Your task to perform on an android device: find which apps use the phone's location Image 0: 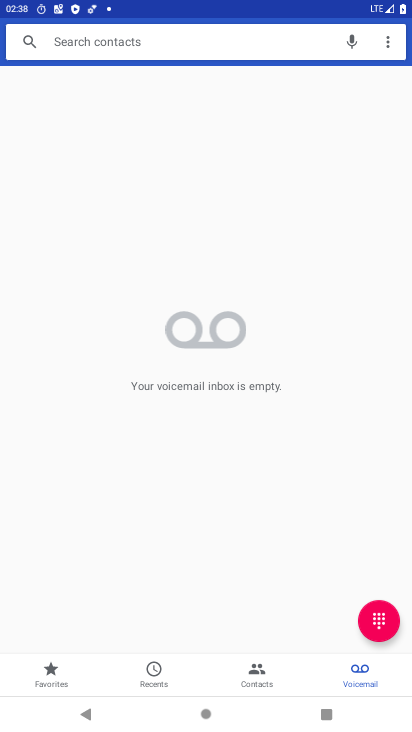
Step 0: drag from (238, 616) to (294, 274)
Your task to perform on an android device: find which apps use the phone's location Image 1: 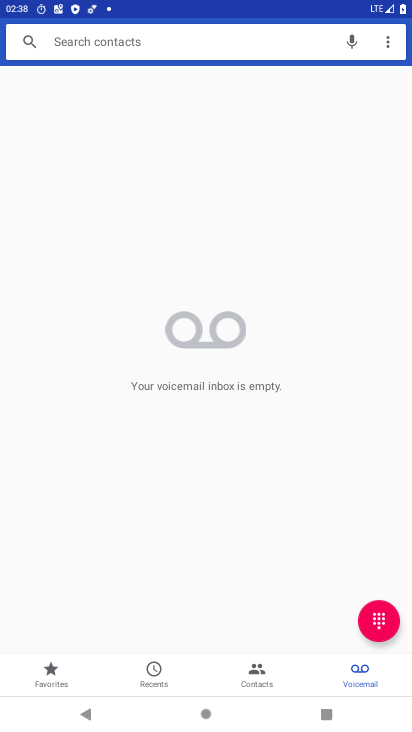
Step 1: drag from (198, 599) to (256, 342)
Your task to perform on an android device: find which apps use the phone's location Image 2: 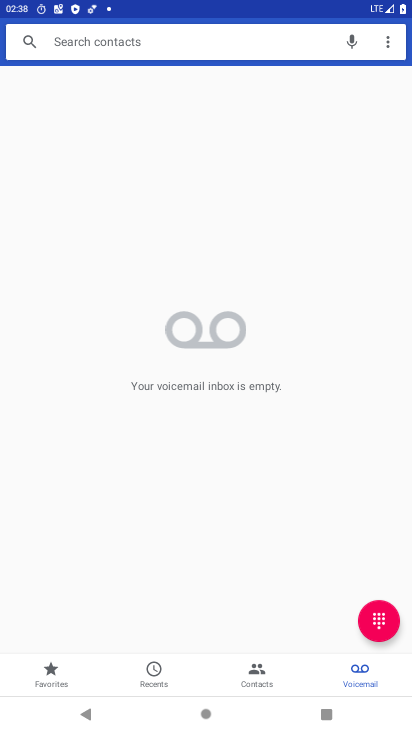
Step 2: drag from (312, 682) to (313, 446)
Your task to perform on an android device: find which apps use the phone's location Image 3: 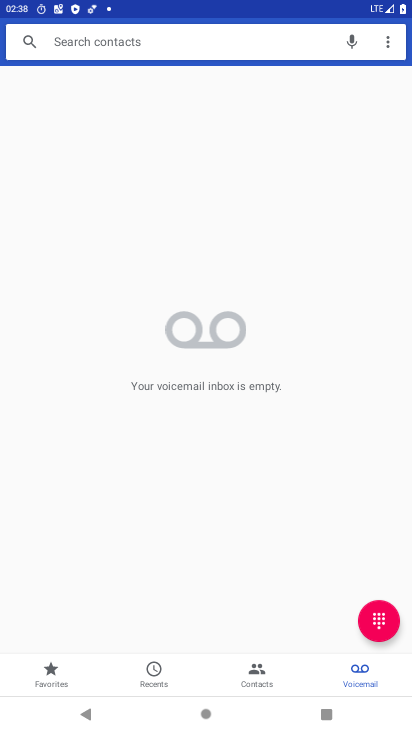
Step 3: drag from (305, 687) to (307, 513)
Your task to perform on an android device: find which apps use the phone's location Image 4: 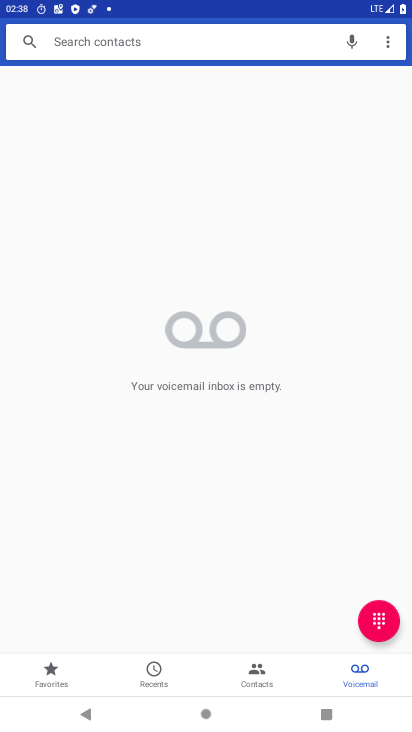
Step 4: drag from (303, 664) to (304, 508)
Your task to perform on an android device: find which apps use the phone's location Image 5: 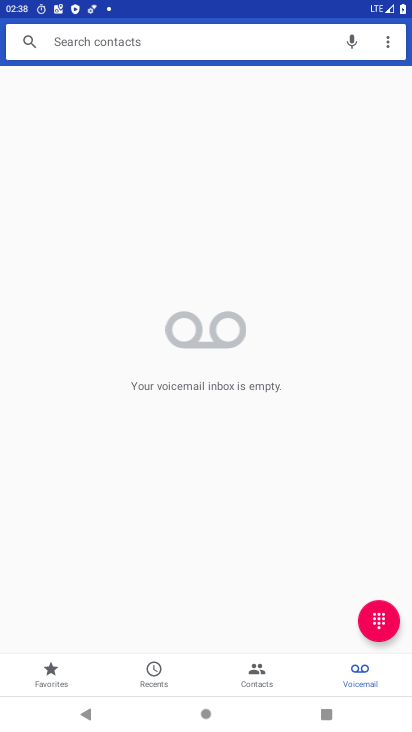
Step 5: drag from (304, 650) to (301, 345)
Your task to perform on an android device: find which apps use the phone's location Image 6: 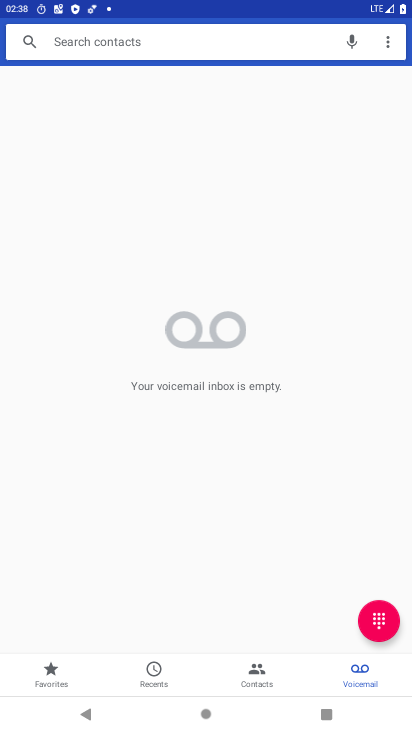
Step 6: drag from (319, 673) to (302, 551)
Your task to perform on an android device: find which apps use the phone's location Image 7: 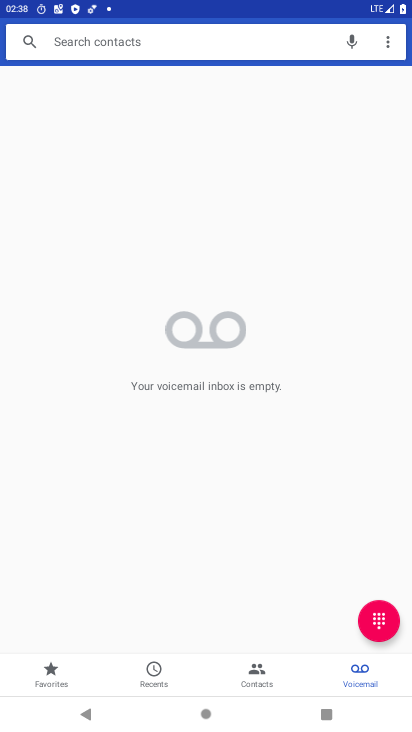
Step 7: drag from (289, 664) to (286, 382)
Your task to perform on an android device: find which apps use the phone's location Image 8: 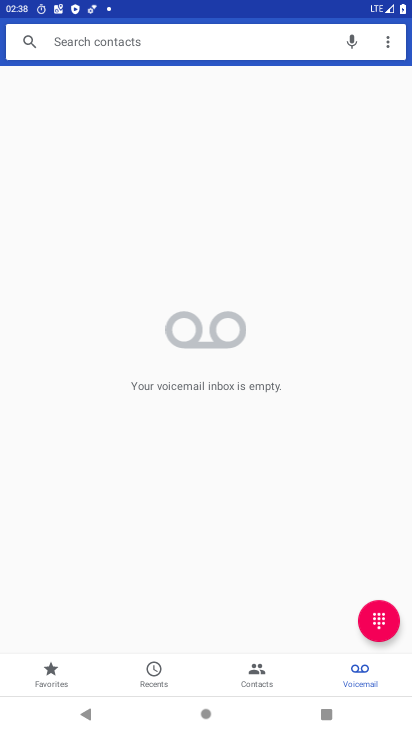
Step 8: press home button
Your task to perform on an android device: find which apps use the phone's location Image 9: 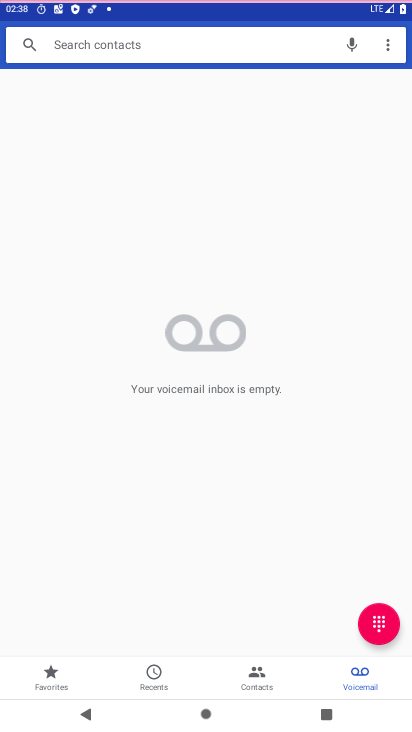
Step 9: drag from (186, 604) to (246, 30)
Your task to perform on an android device: find which apps use the phone's location Image 10: 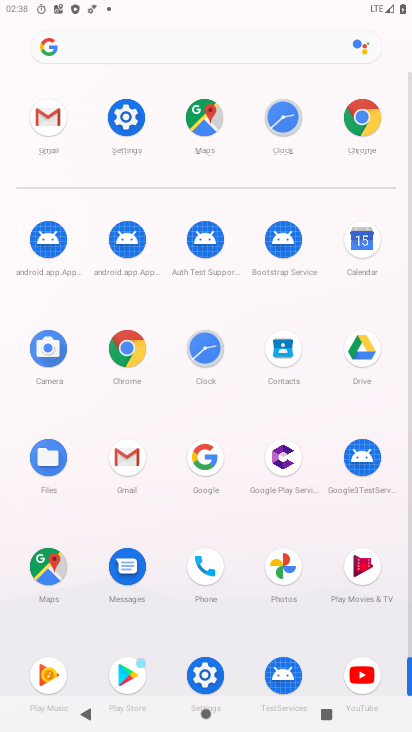
Step 10: click (117, 114)
Your task to perform on an android device: find which apps use the phone's location Image 11: 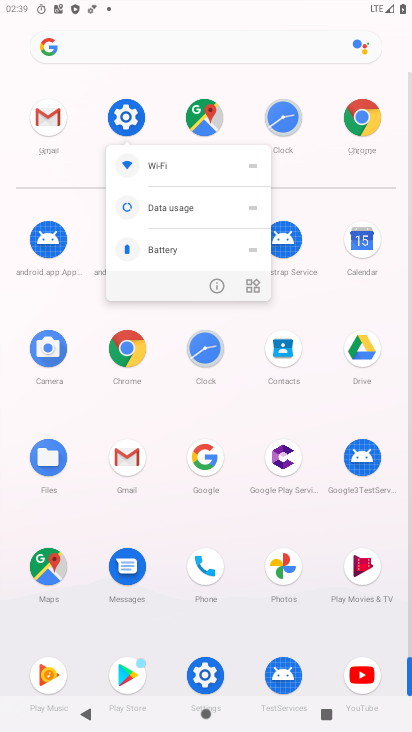
Step 11: click (224, 292)
Your task to perform on an android device: find which apps use the phone's location Image 12: 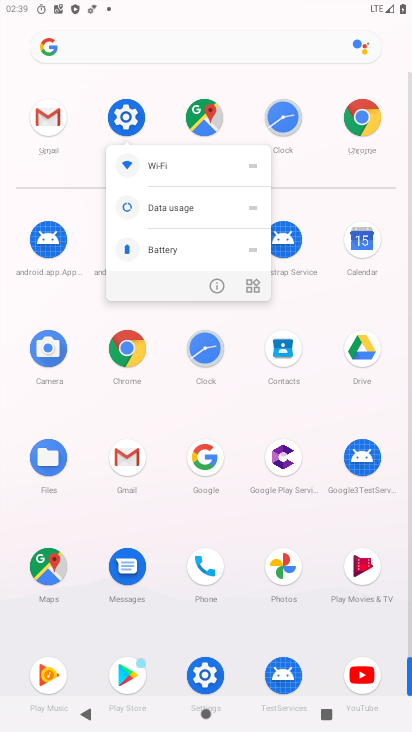
Step 12: click (212, 281)
Your task to perform on an android device: find which apps use the phone's location Image 13: 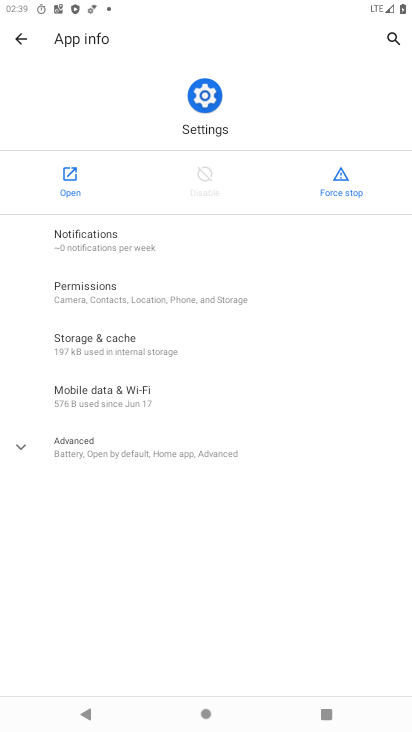
Step 13: click (68, 185)
Your task to perform on an android device: find which apps use the phone's location Image 14: 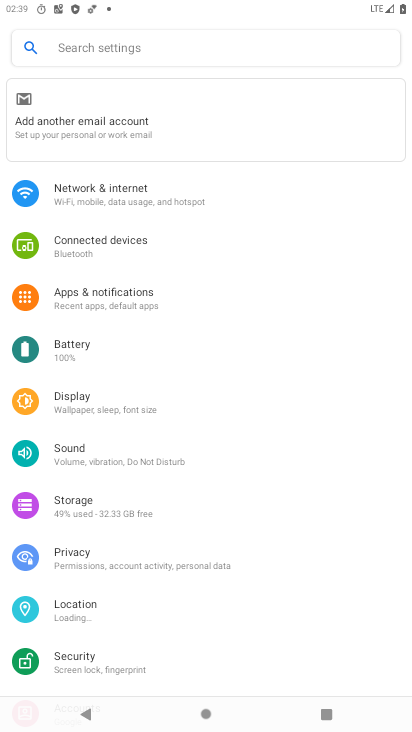
Step 14: drag from (200, 448) to (229, 240)
Your task to perform on an android device: find which apps use the phone's location Image 15: 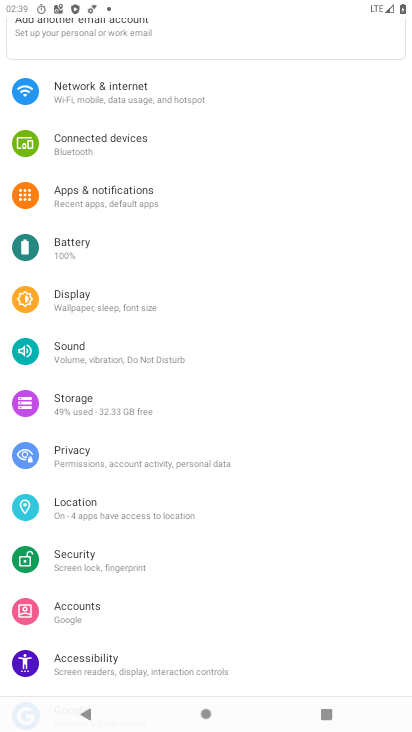
Step 15: click (146, 199)
Your task to perform on an android device: find which apps use the phone's location Image 16: 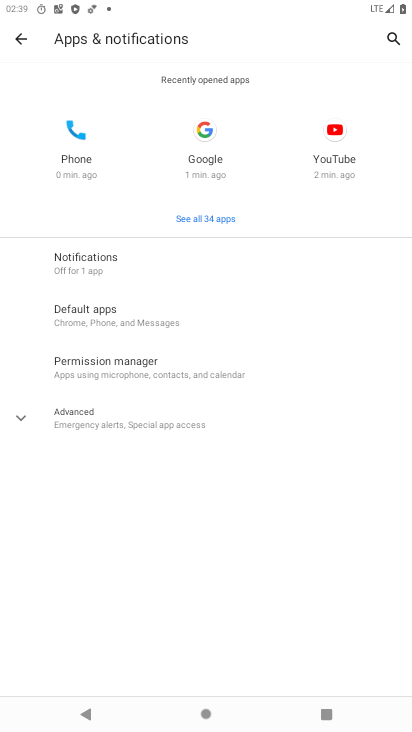
Step 16: click (17, 44)
Your task to perform on an android device: find which apps use the phone's location Image 17: 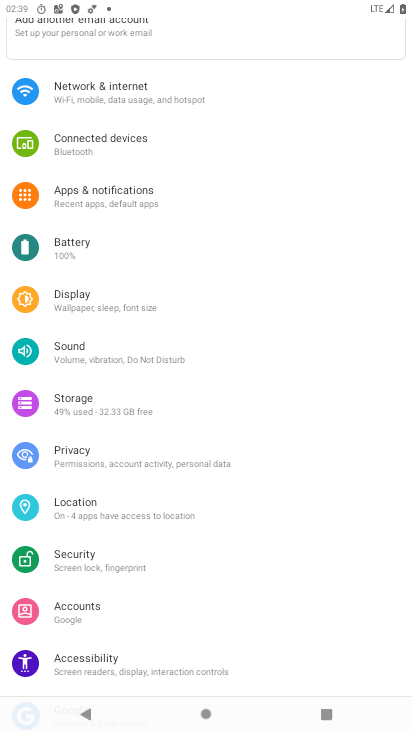
Step 17: click (90, 506)
Your task to perform on an android device: find which apps use the phone's location Image 18: 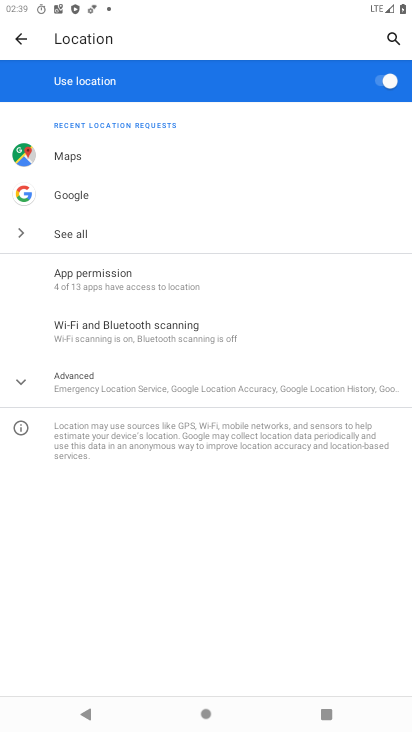
Step 18: click (138, 370)
Your task to perform on an android device: find which apps use the phone's location Image 19: 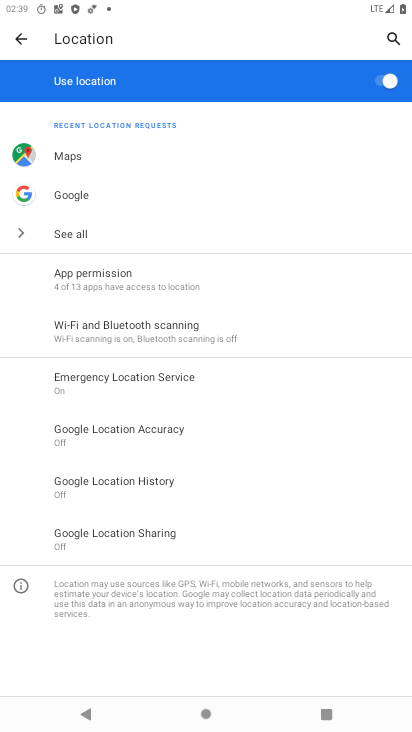
Step 19: drag from (213, 452) to (240, 278)
Your task to perform on an android device: find which apps use the phone's location Image 20: 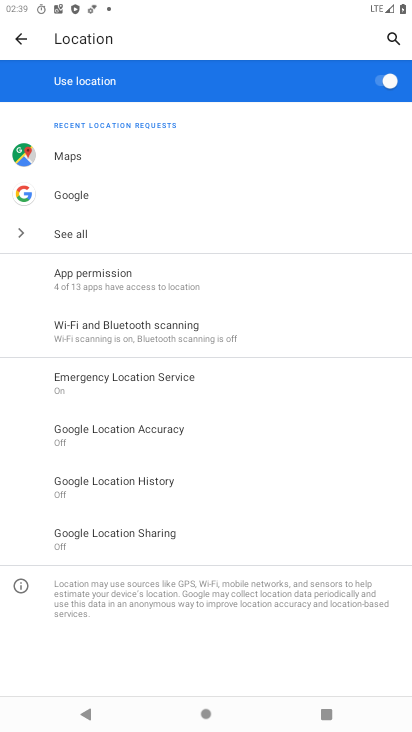
Step 20: click (152, 275)
Your task to perform on an android device: find which apps use the phone's location Image 21: 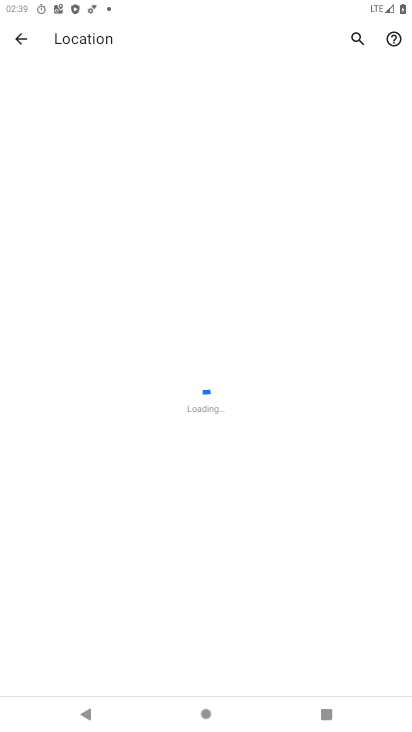
Step 21: task complete